Your task to perform on an android device: open wifi settings Image 0: 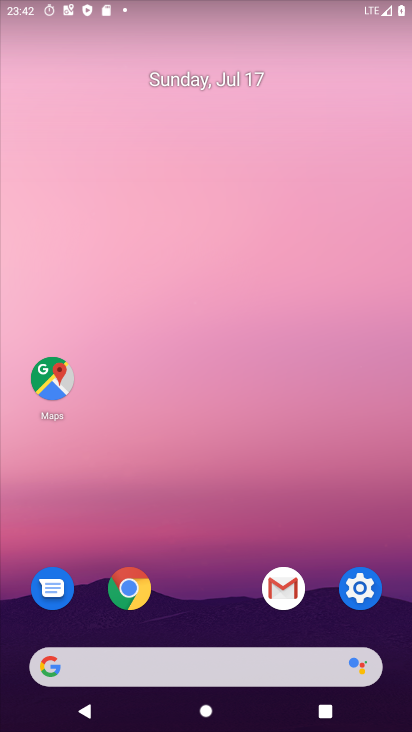
Step 0: press home button
Your task to perform on an android device: open wifi settings Image 1: 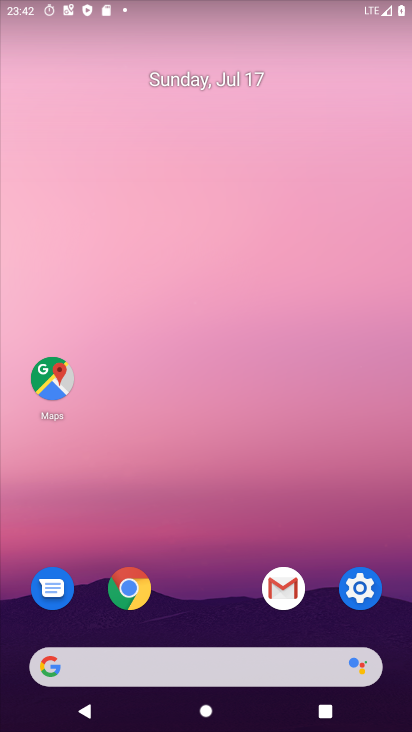
Step 1: click (367, 574)
Your task to perform on an android device: open wifi settings Image 2: 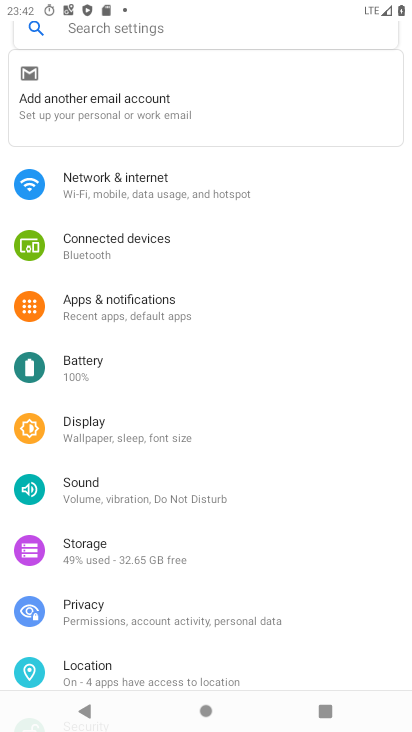
Step 2: click (138, 190)
Your task to perform on an android device: open wifi settings Image 3: 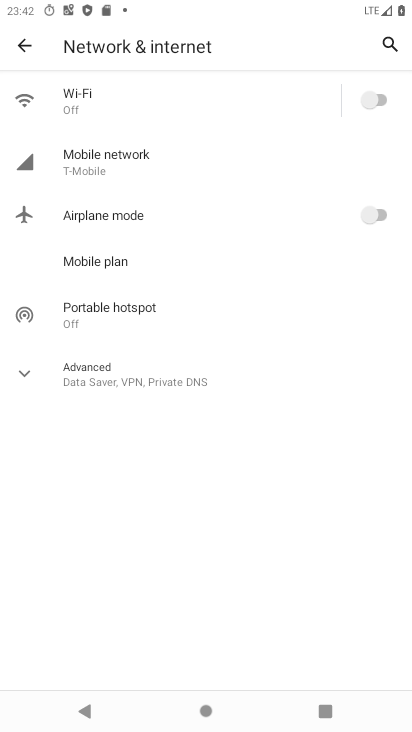
Step 3: click (121, 98)
Your task to perform on an android device: open wifi settings Image 4: 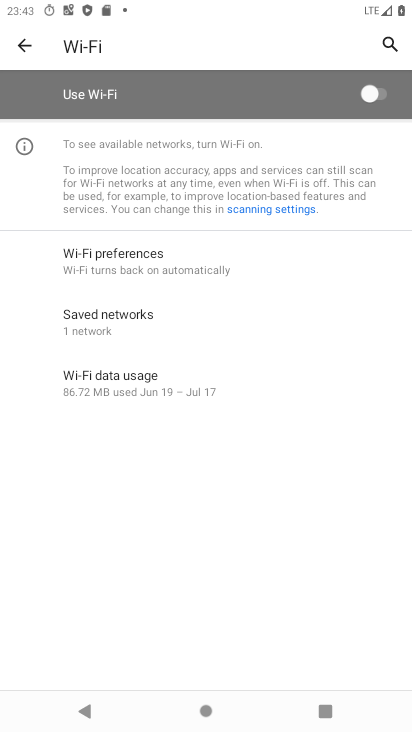
Step 4: click (375, 88)
Your task to perform on an android device: open wifi settings Image 5: 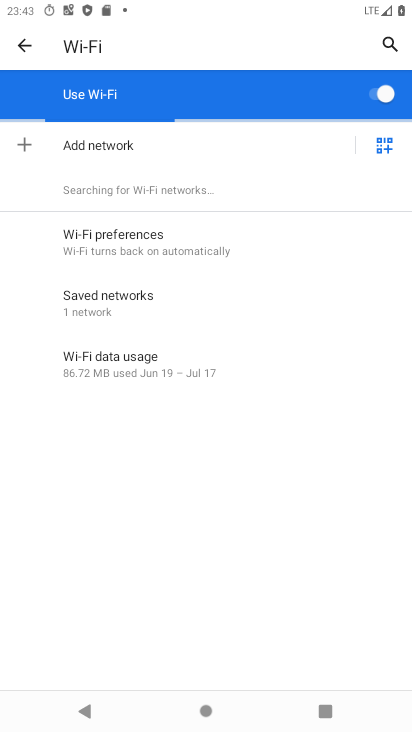
Step 5: task complete